Your task to perform on an android device: Open Yahoo.com Image 0: 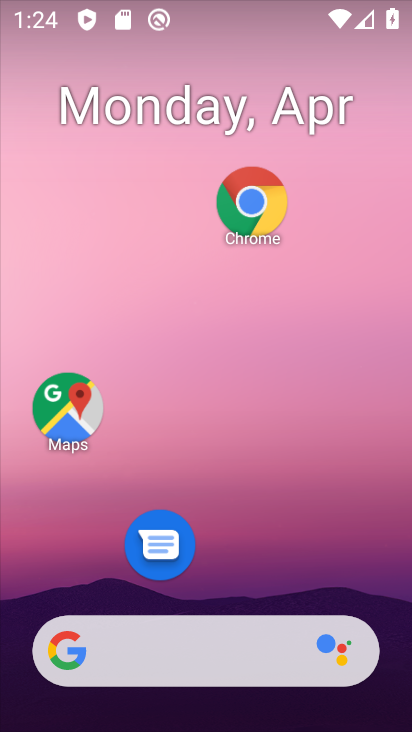
Step 0: task complete